Your task to perform on an android device: open wifi settings Image 0: 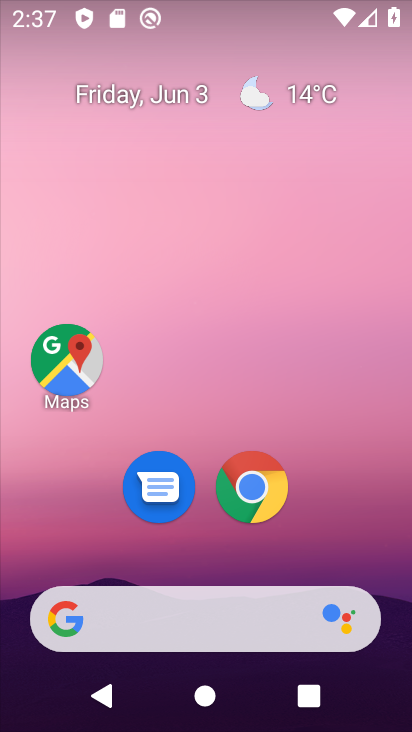
Step 0: drag from (187, 568) to (225, 62)
Your task to perform on an android device: open wifi settings Image 1: 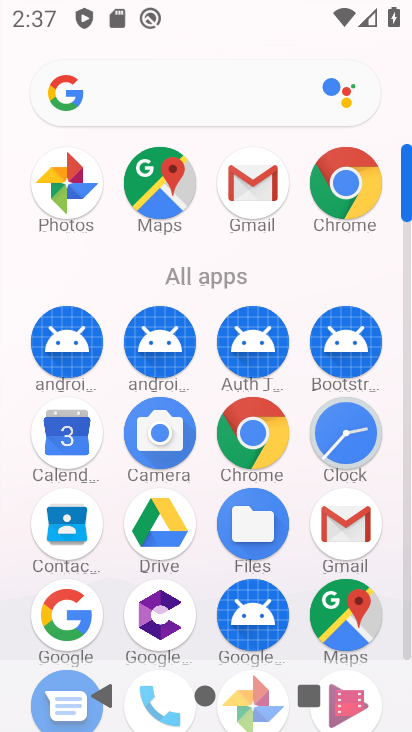
Step 1: drag from (96, 10) to (155, 531)
Your task to perform on an android device: open wifi settings Image 2: 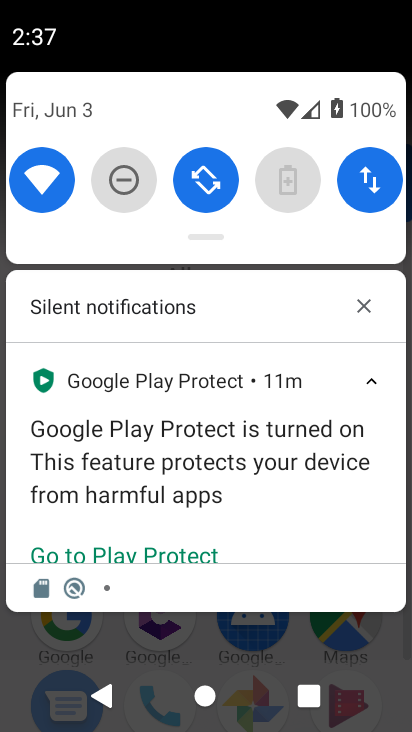
Step 2: click (44, 185)
Your task to perform on an android device: open wifi settings Image 3: 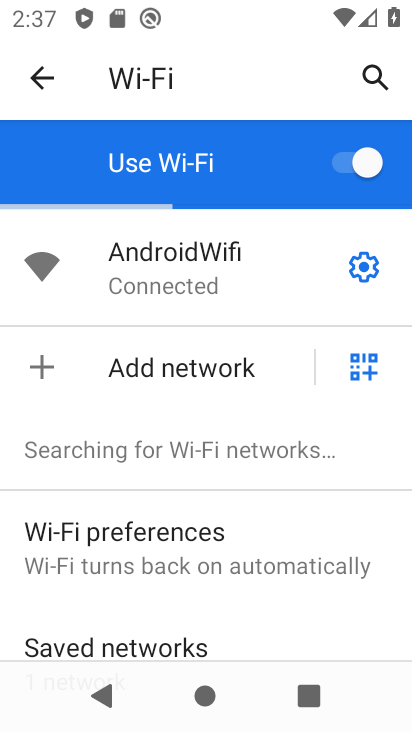
Step 3: task complete